Your task to perform on an android device: Search for sushi restaurants on Maps Image 0: 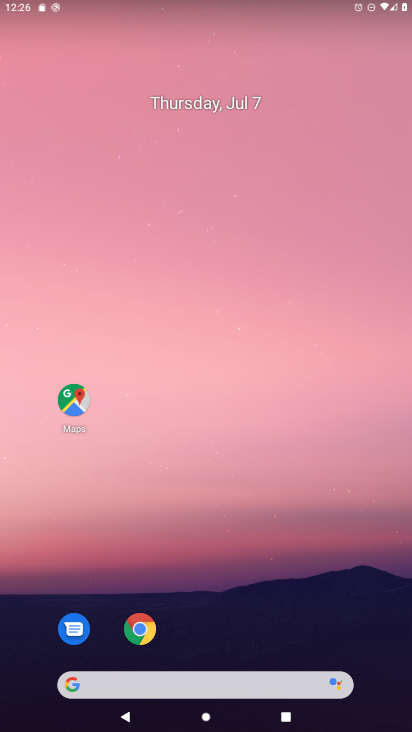
Step 0: drag from (209, 600) to (210, 48)
Your task to perform on an android device: Search for sushi restaurants on Maps Image 1: 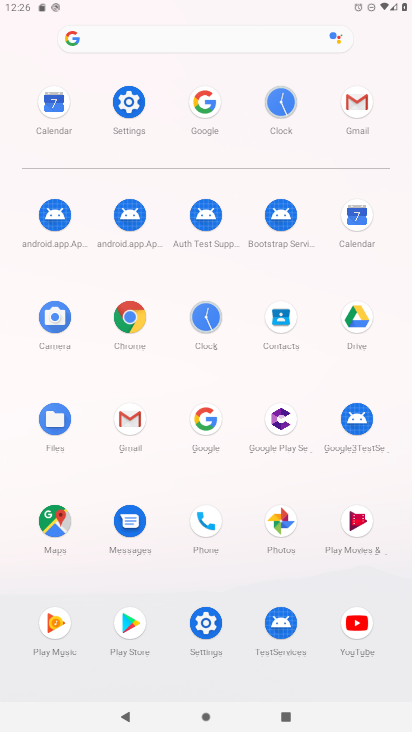
Step 1: click (49, 523)
Your task to perform on an android device: Search for sushi restaurants on Maps Image 2: 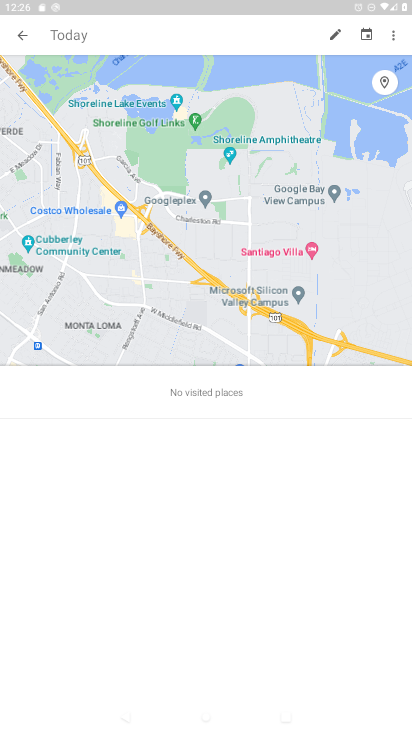
Step 2: click (25, 33)
Your task to perform on an android device: Search for sushi restaurants on Maps Image 3: 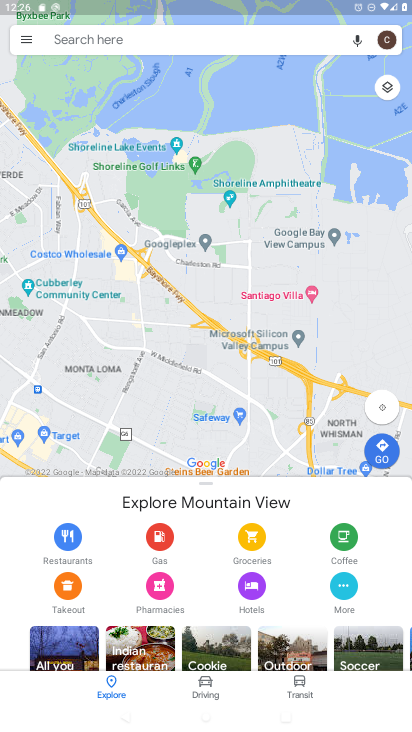
Step 3: click (149, 44)
Your task to perform on an android device: Search for sushi restaurants on Maps Image 4: 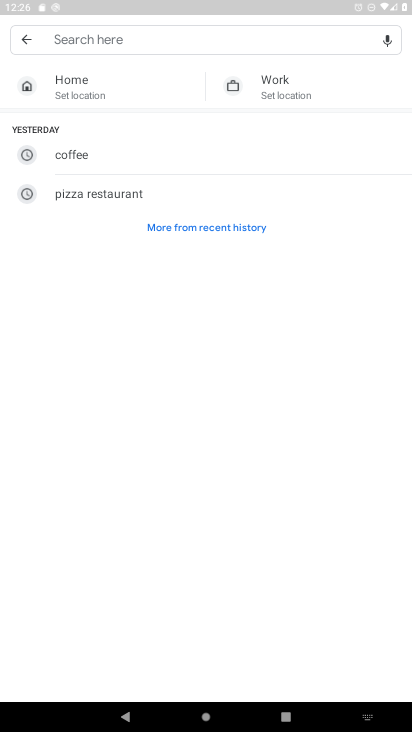
Step 4: type "sushi restaurants"
Your task to perform on an android device: Search for sushi restaurants on Maps Image 5: 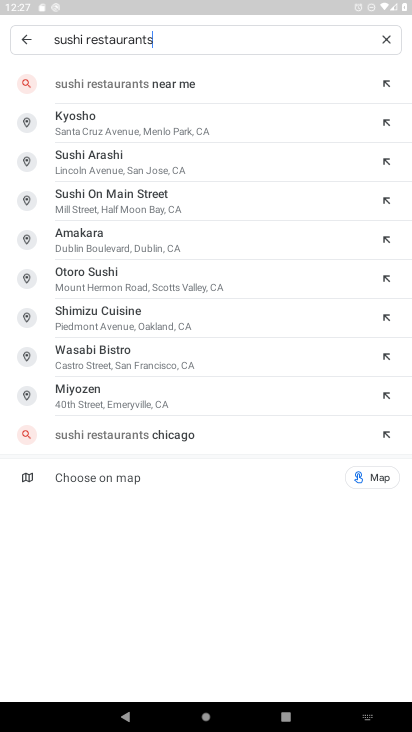
Step 5: click (156, 78)
Your task to perform on an android device: Search for sushi restaurants on Maps Image 6: 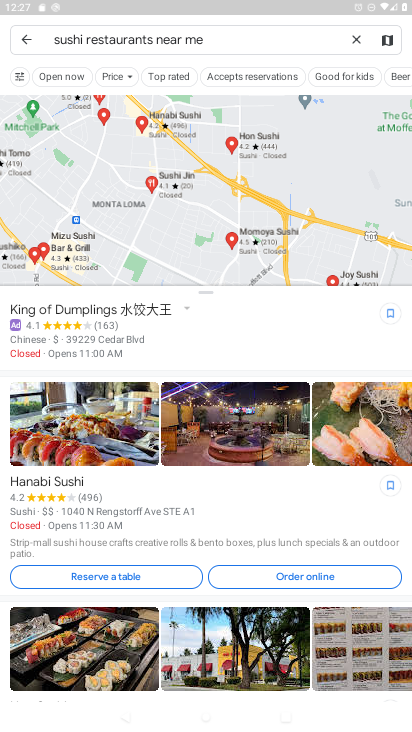
Step 6: task complete